Your task to perform on an android device: Search for vegetarian restaurants on Maps Image 0: 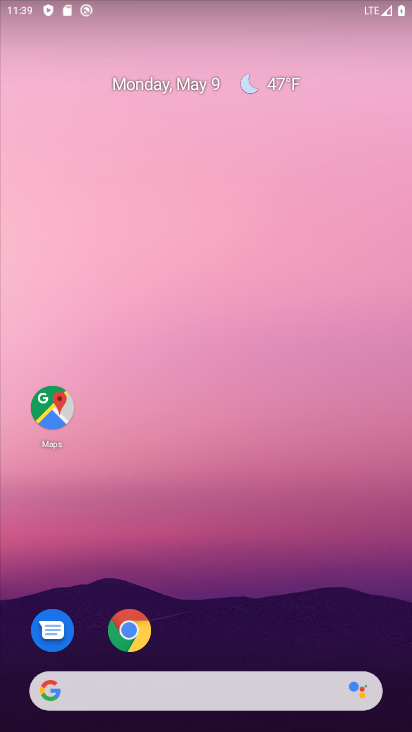
Step 0: click (49, 404)
Your task to perform on an android device: Search for vegetarian restaurants on Maps Image 1: 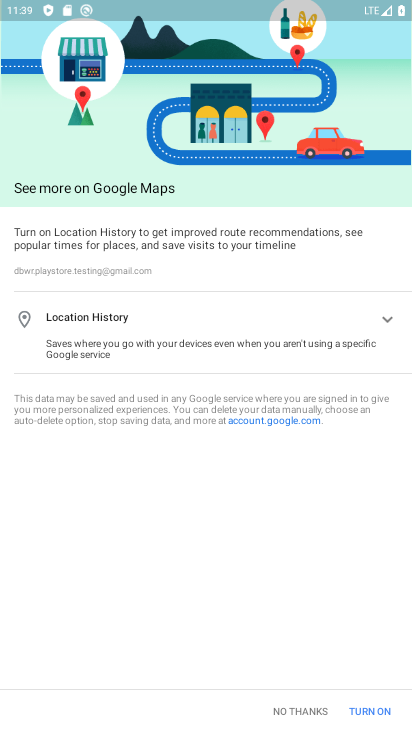
Step 1: click (295, 714)
Your task to perform on an android device: Search for vegetarian restaurants on Maps Image 2: 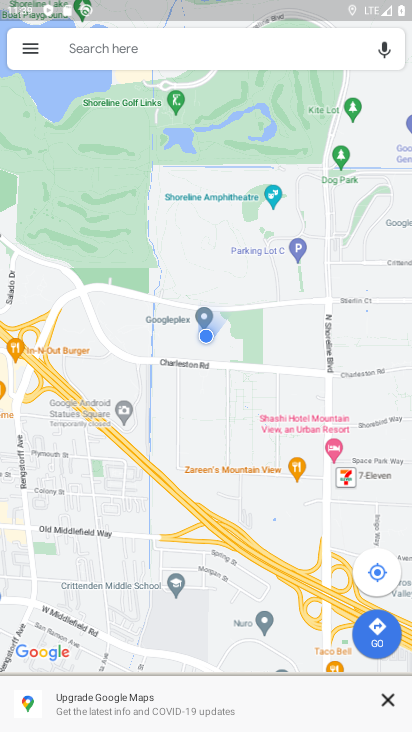
Step 2: click (199, 55)
Your task to perform on an android device: Search for vegetarian restaurants on Maps Image 3: 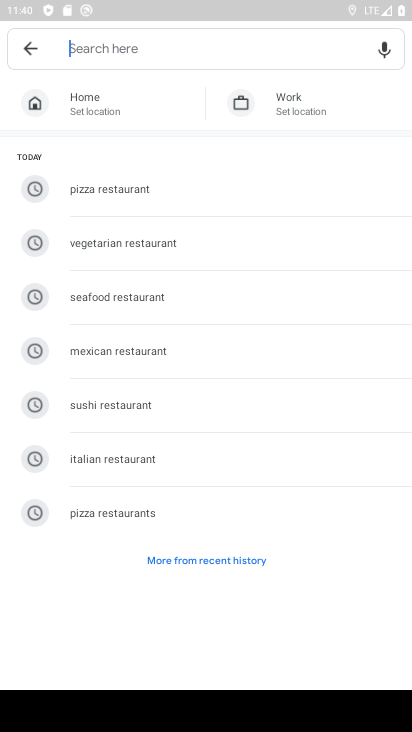
Step 3: click (118, 246)
Your task to perform on an android device: Search for vegetarian restaurants on Maps Image 4: 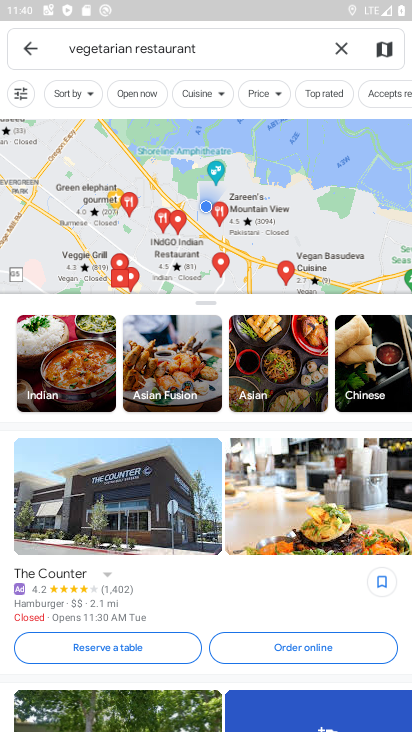
Step 4: task complete